Your task to perform on an android device: see creations saved in the google photos Image 0: 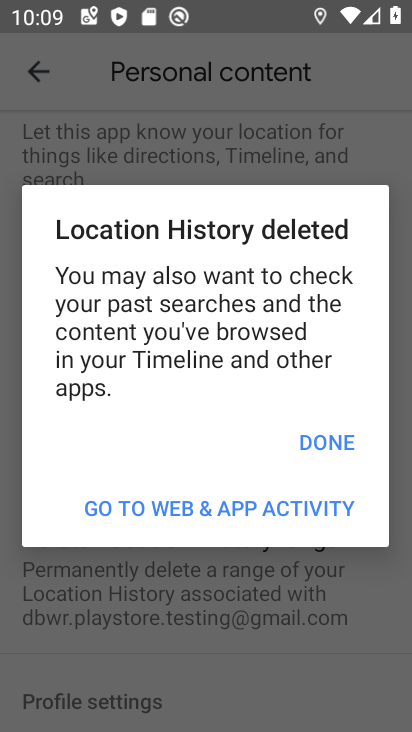
Step 0: press home button
Your task to perform on an android device: see creations saved in the google photos Image 1: 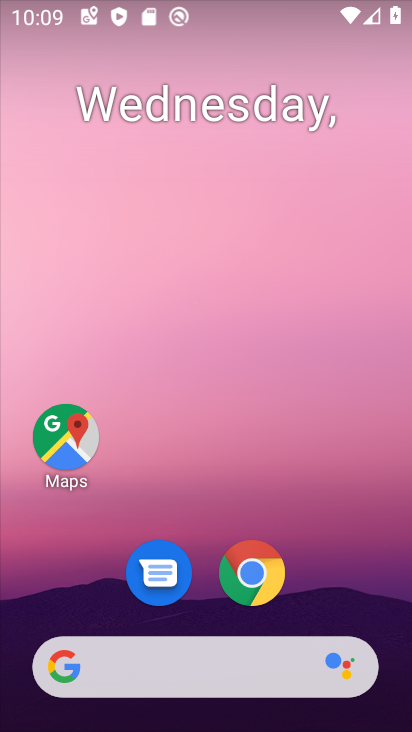
Step 1: drag from (348, 594) to (351, 137)
Your task to perform on an android device: see creations saved in the google photos Image 2: 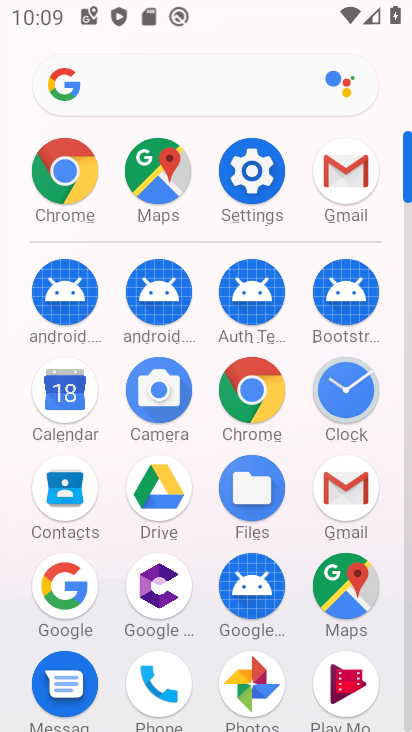
Step 2: drag from (392, 610) to (388, 285)
Your task to perform on an android device: see creations saved in the google photos Image 3: 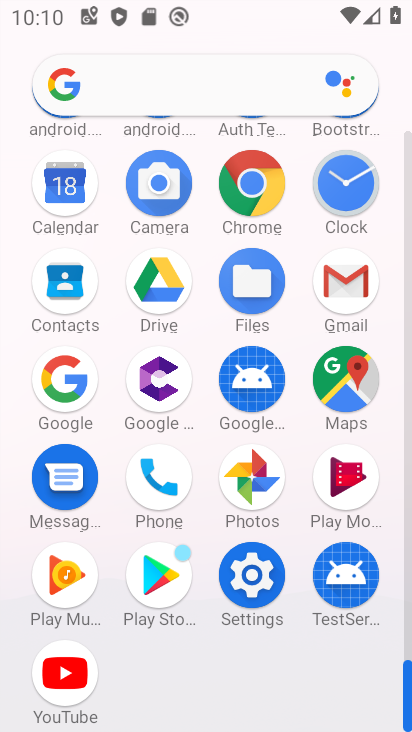
Step 3: click (254, 478)
Your task to perform on an android device: see creations saved in the google photos Image 4: 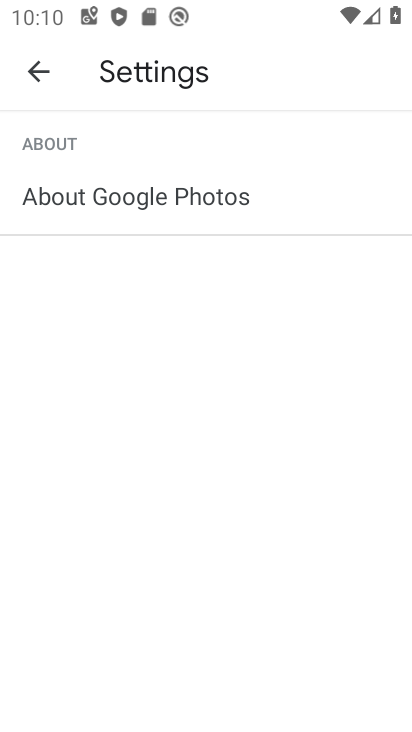
Step 4: click (45, 67)
Your task to perform on an android device: see creations saved in the google photos Image 5: 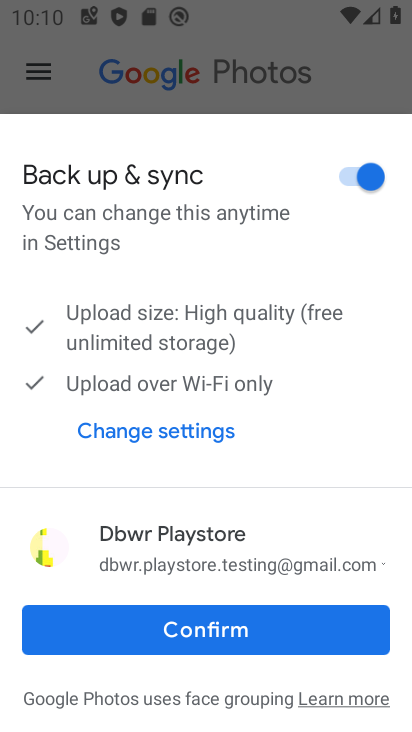
Step 5: click (272, 645)
Your task to perform on an android device: see creations saved in the google photos Image 6: 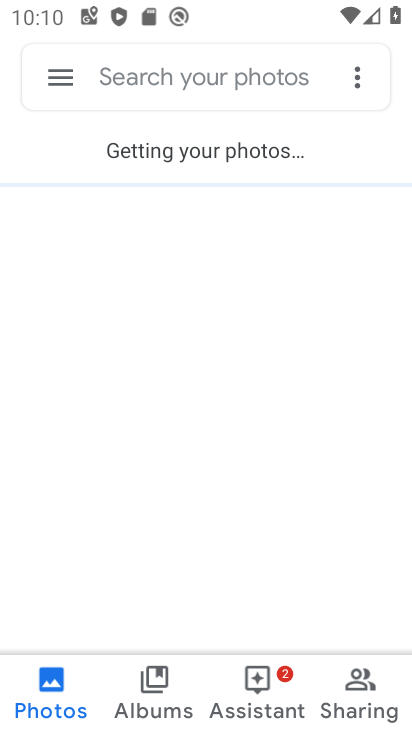
Step 6: click (218, 81)
Your task to perform on an android device: see creations saved in the google photos Image 7: 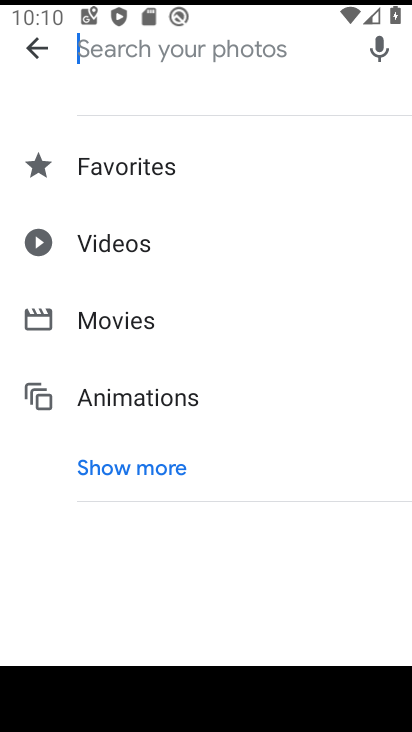
Step 7: click (152, 478)
Your task to perform on an android device: see creations saved in the google photos Image 8: 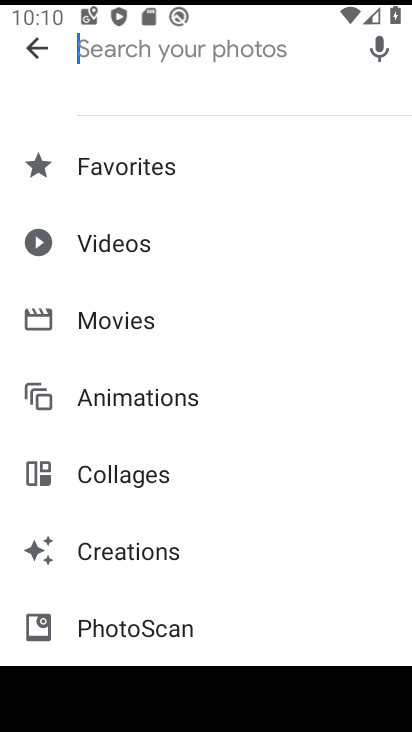
Step 8: drag from (311, 543) to (295, 331)
Your task to perform on an android device: see creations saved in the google photos Image 9: 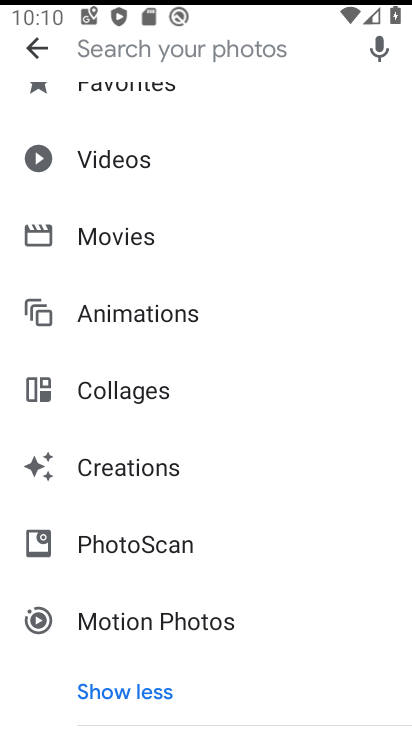
Step 9: click (172, 472)
Your task to perform on an android device: see creations saved in the google photos Image 10: 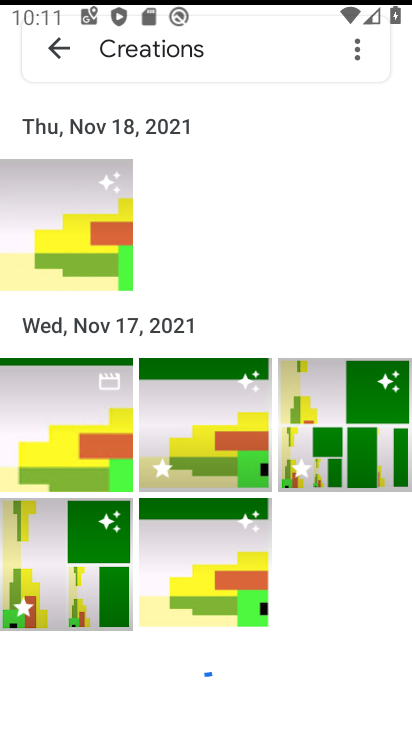
Step 10: task complete